Your task to perform on an android device: Open my contact list Image 0: 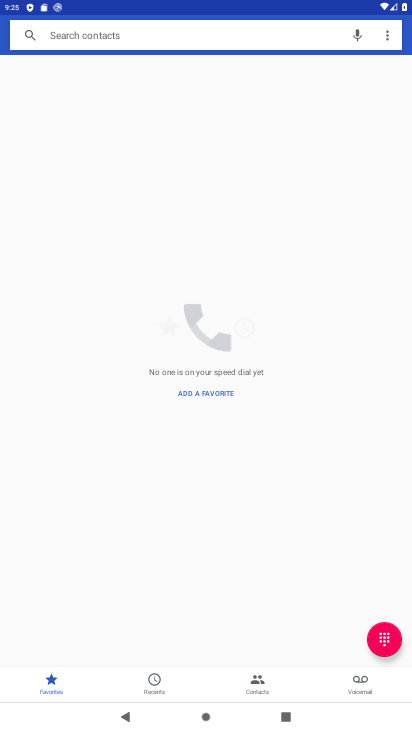
Step 0: press home button
Your task to perform on an android device: Open my contact list Image 1: 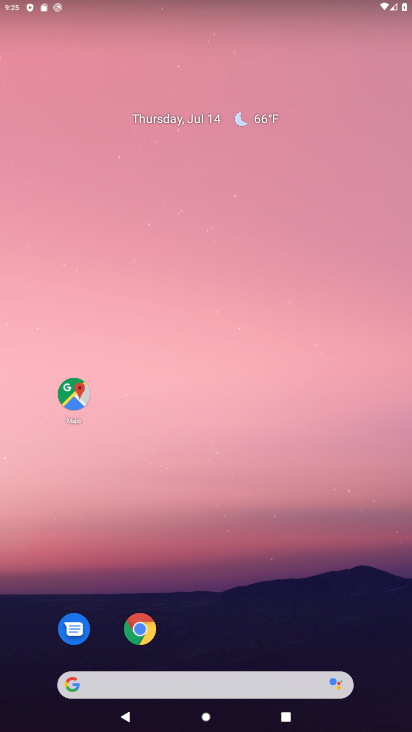
Step 1: drag from (277, 615) to (258, 40)
Your task to perform on an android device: Open my contact list Image 2: 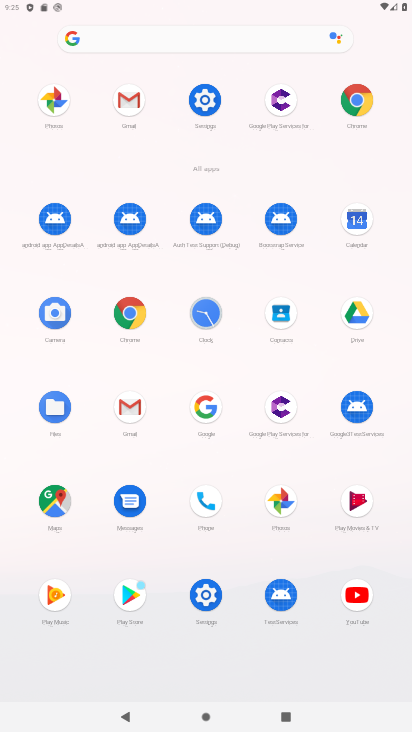
Step 2: click (281, 312)
Your task to perform on an android device: Open my contact list Image 3: 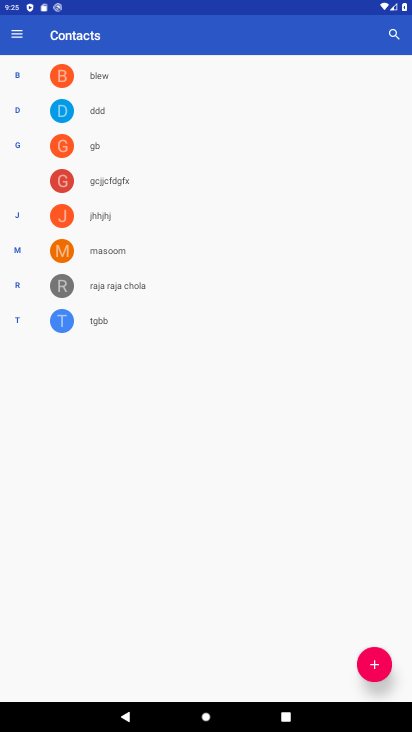
Step 3: task complete